Your task to perform on an android device: Open Google Maps Image 0: 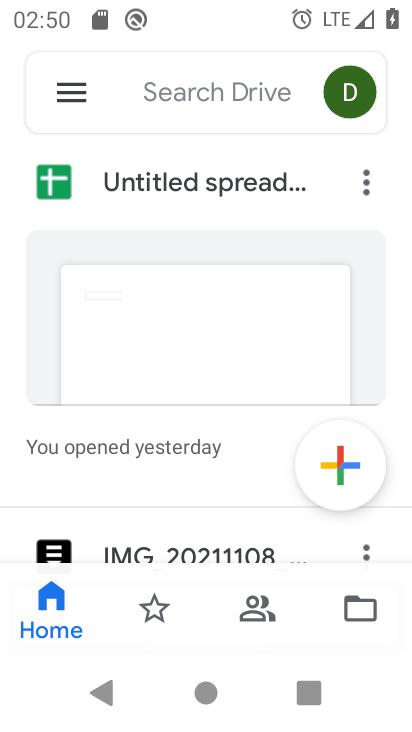
Step 0: press home button
Your task to perform on an android device: Open Google Maps Image 1: 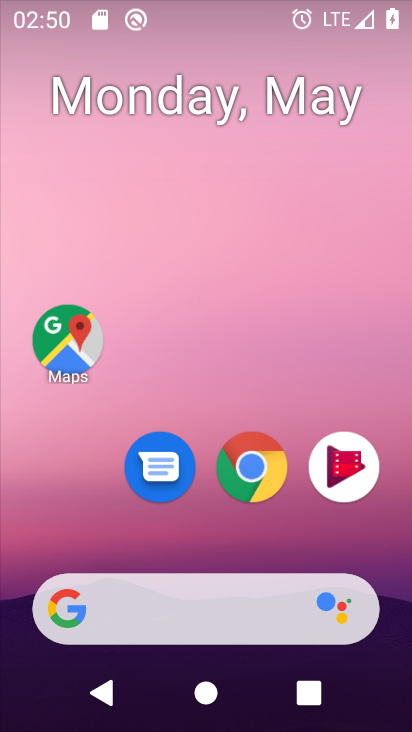
Step 1: click (46, 308)
Your task to perform on an android device: Open Google Maps Image 2: 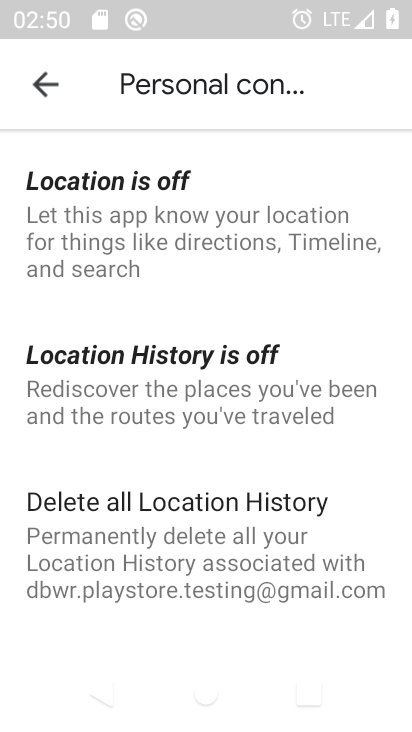
Step 2: click (36, 80)
Your task to perform on an android device: Open Google Maps Image 3: 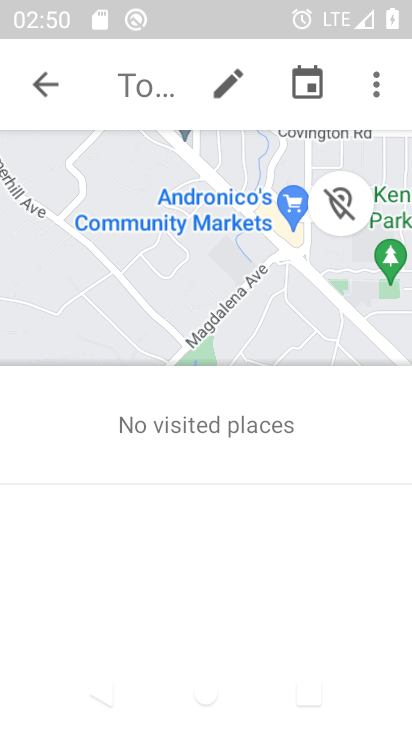
Step 3: task complete